Your task to perform on an android device: Go to privacy settings Image 0: 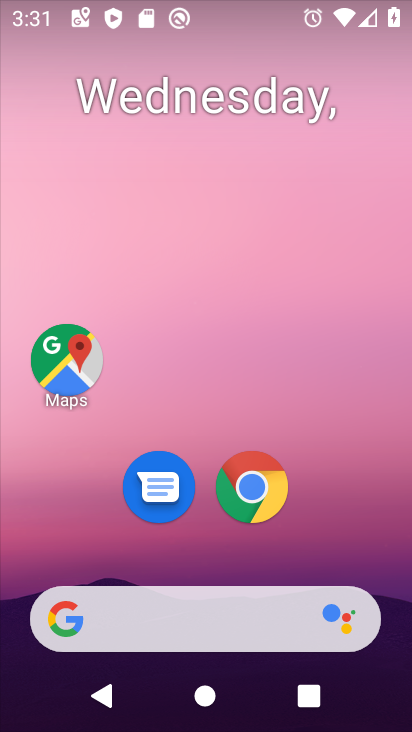
Step 0: drag from (379, 550) to (365, 148)
Your task to perform on an android device: Go to privacy settings Image 1: 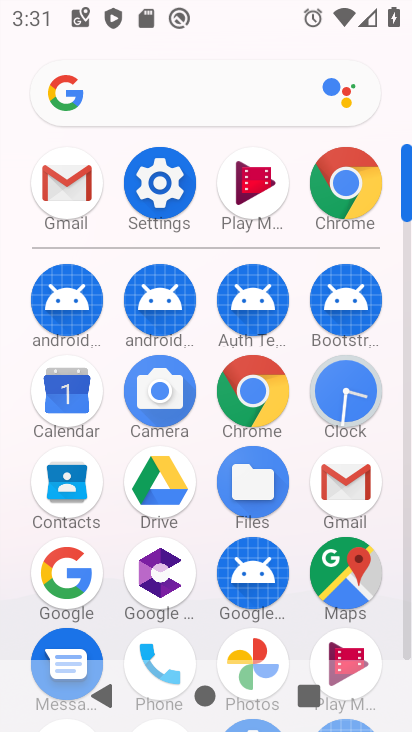
Step 1: click (160, 205)
Your task to perform on an android device: Go to privacy settings Image 2: 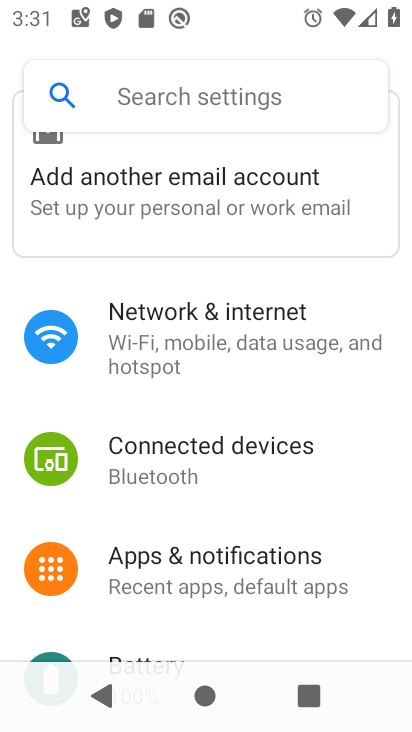
Step 2: drag from (341, 462) to (361, 341)
Your task to perform on an android device: Go to privacy settings Image 3: 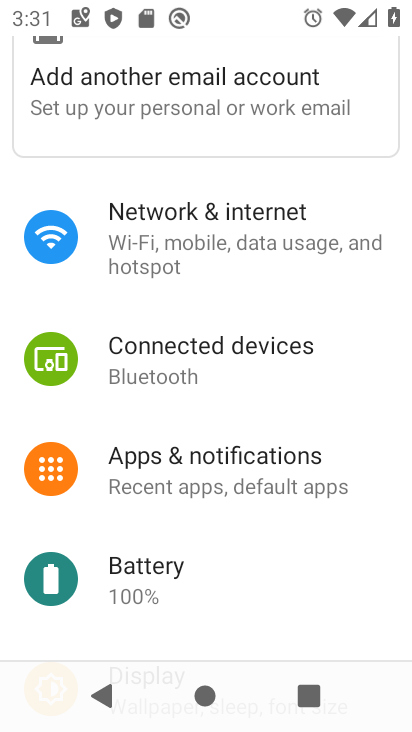
Step 3: drag from (376, 555) to (362, 403)
Your task to perform on an android device: Go to privacy settings Image 4: 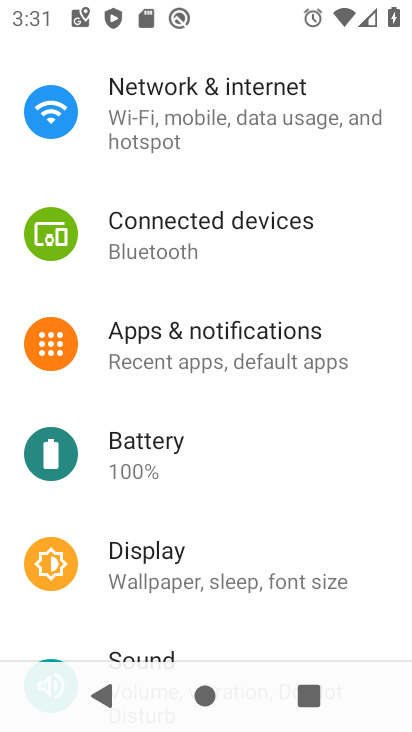
Step 4: drag from (358, 479) to (351, 381)
Your task to perform on an android device: Go to privacy settings Image 5: 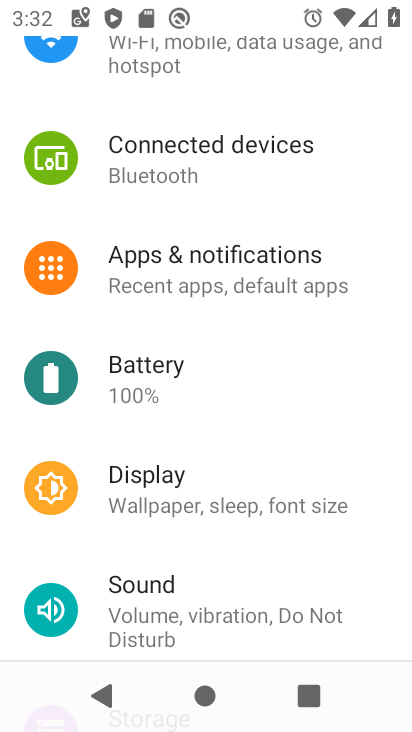
Step 5: drag from (371, 552) to (361, 375)
Your task to perform on an android device: Go to privacy settings Image 6: 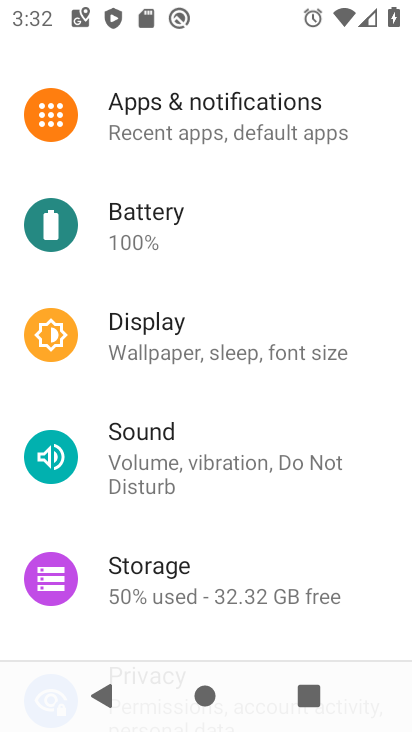
Step 6: drag from (370, 534) to (363, 412)
Your task to perform on an android device: Go to privacy settings Image 7: 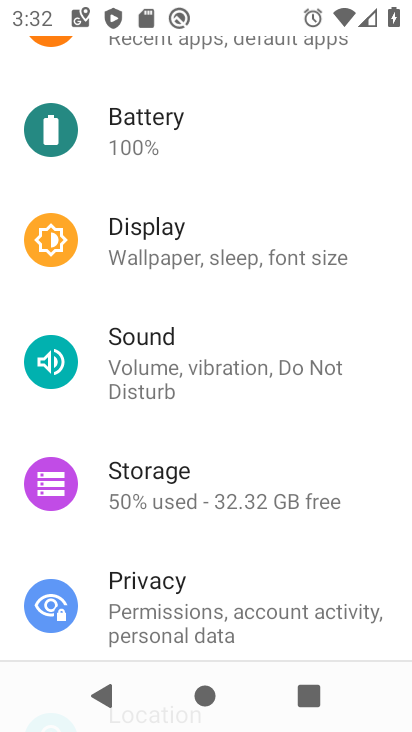
Step 7: drag from (366, 534) to (363, 401)
Your task to perform on an android device: Go to privacy settings Image 8: 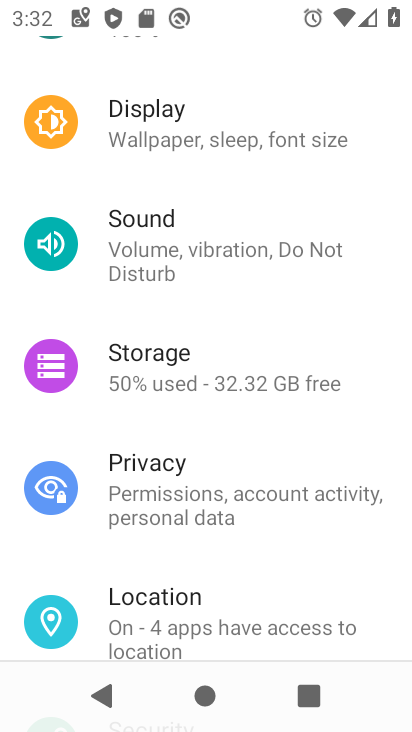
Step 8: drag from (321, 545) to (335, 419)
Your task to perform on an android device: Go to privacy settings Image 9: 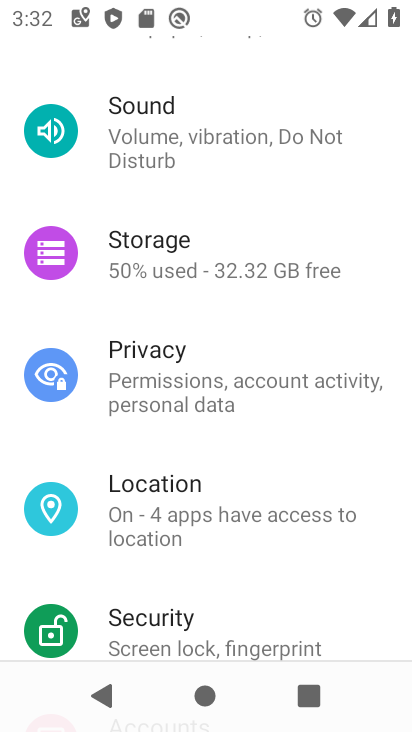
Step 9: click (275, 407)
Your task to perform on an android device: Go to privacy settings Image 10: 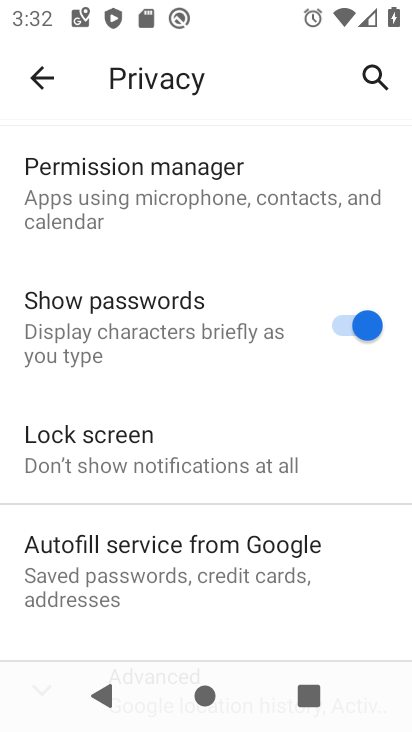
Step 10: task complete